Your task to perform on an android device: manage bookmarks in the chrome app Image 0: 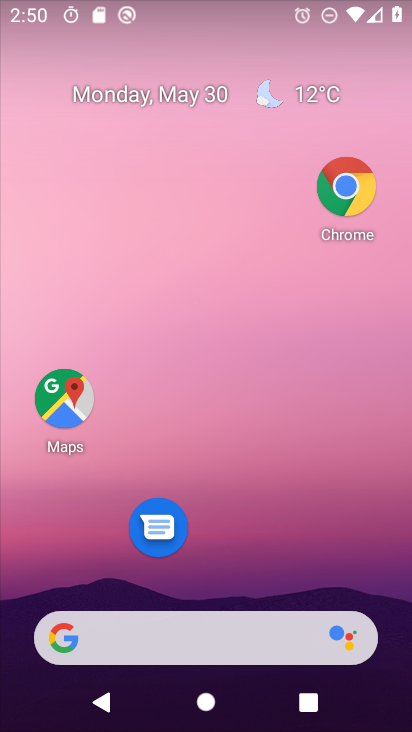
Step 0: drag from (212, 575) to (110, 8)
Your task to perform on an android device: manage bookmarks in the chrome app Image 1: 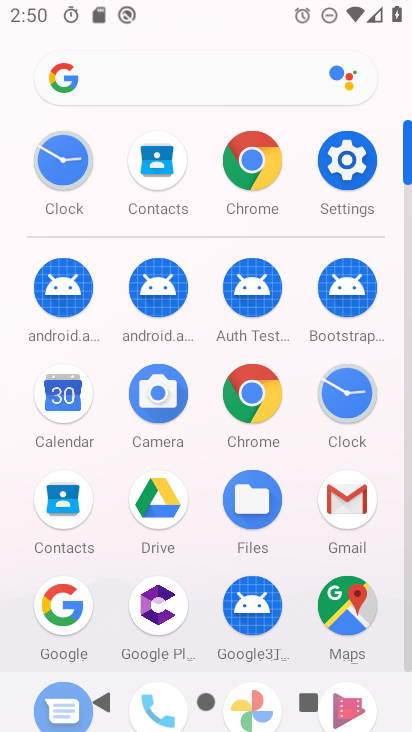
Step 1: click (246, 170)
Your task to perform on an android device: manage bookmarks in the chrome app Image 2: 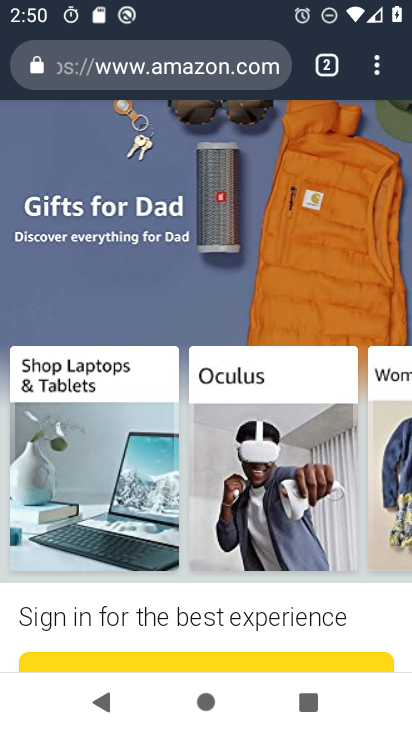
Step 2: task complete